Your task to perform on an android device: turn on improve location accuracy Image 0: 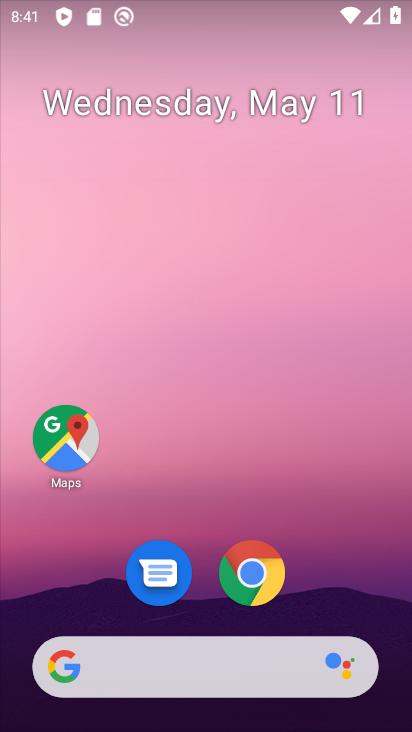
Step 0: drag from (351, 579) to (361, 170)
Your task to perform on an android device: turn on improve location accuracy Image 1: 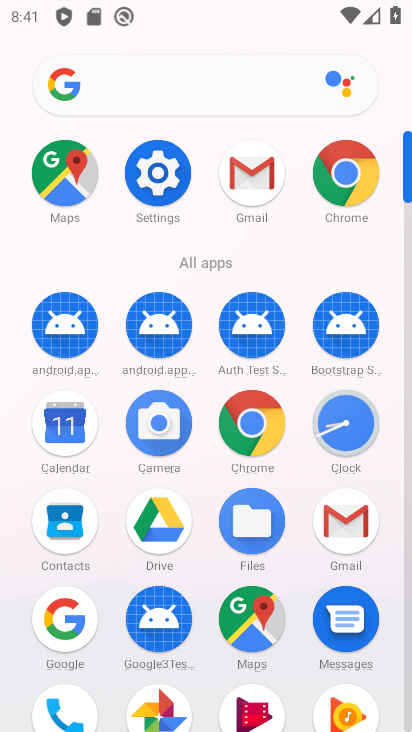
Step 1: click (142, 181)
Your task to perform on an android device: turn on improve location accuracy Image 2: 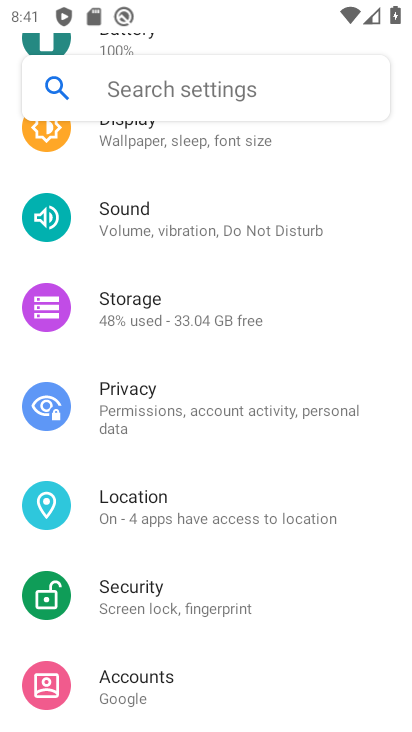
Step 2: click (160, 508)
Your task to perform on an android device: turn on improve location accuracy Image 3: 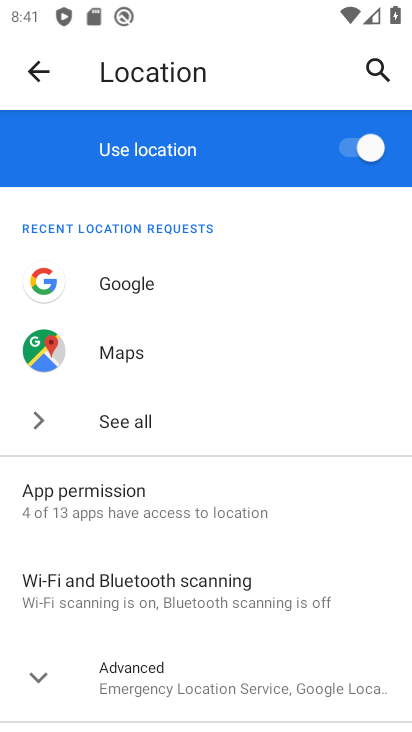
Step 3: click (166, 661)
Your task to perform on an android device: turn on improve location accuracy Image 4: 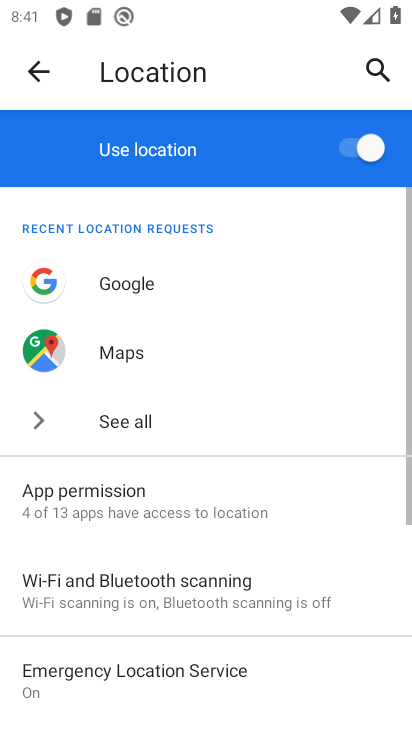
Step 4: drag from (265, 606) to (340, 304)
Your task to perform on an android device: turn on improve location accuracy Image 5: 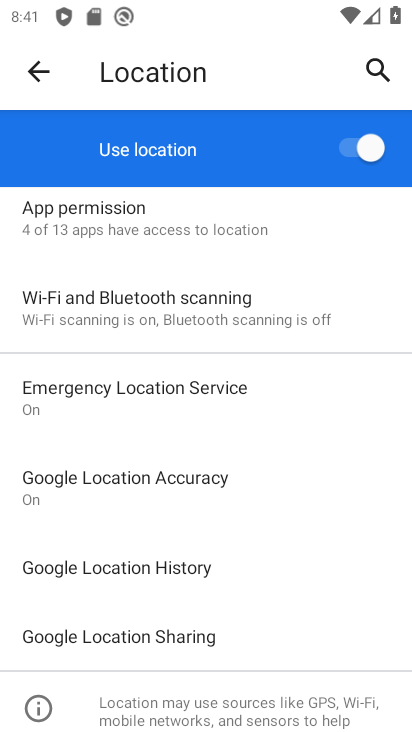
Step 5: click (180, 570)
Your task to perform on an android device: turn on improve location accuracy Image 6: 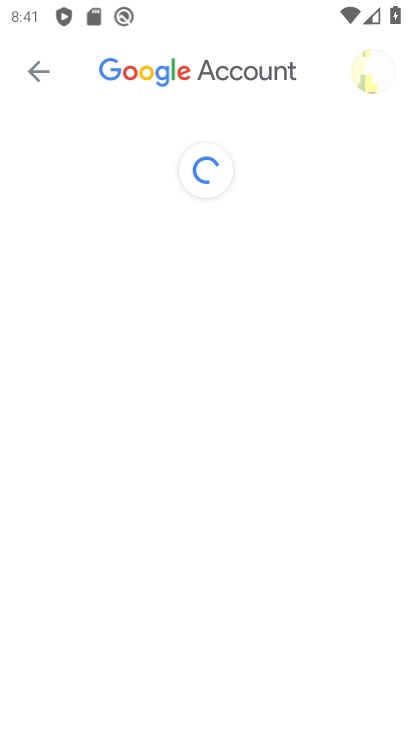
Step 6: press back button
Your task to perform on an android device: turn on improve location accuracy Image 7: 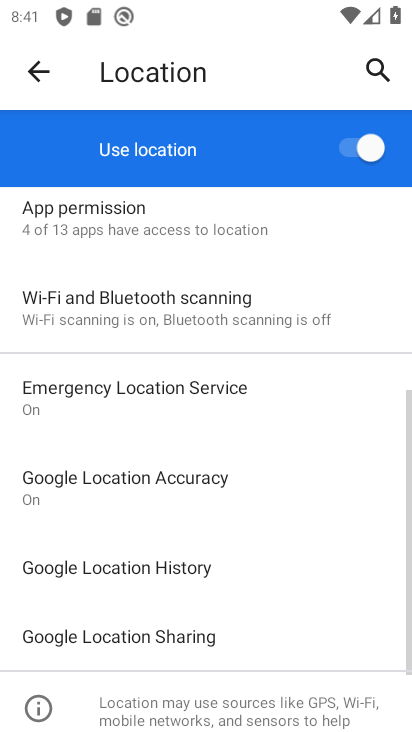
Step 7: click (209, 466)
Your task to perform on an android device: turn on improve location accuracy Image 8: 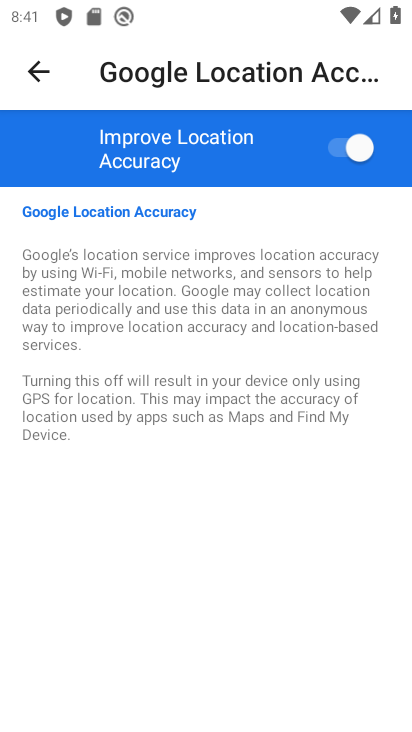
Step 8: task complete